Your task to perform on an android device: stop showing notifications on the lock screen Image 0: 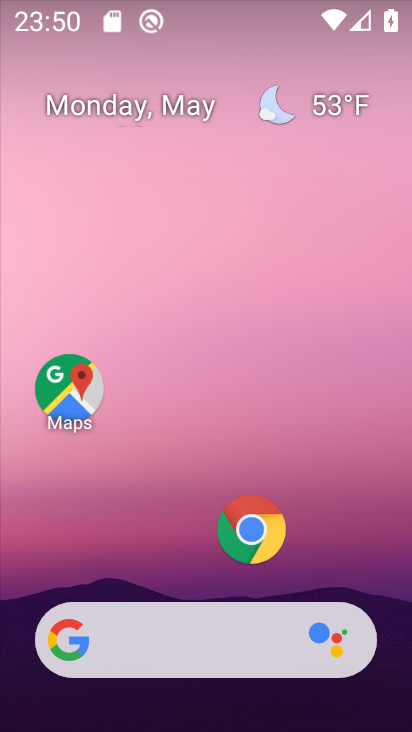
Step 0: drag from (330, 548) to (300, 166)
Your task to perform on an android device: stop showing notifications on the lock screen Image 1: 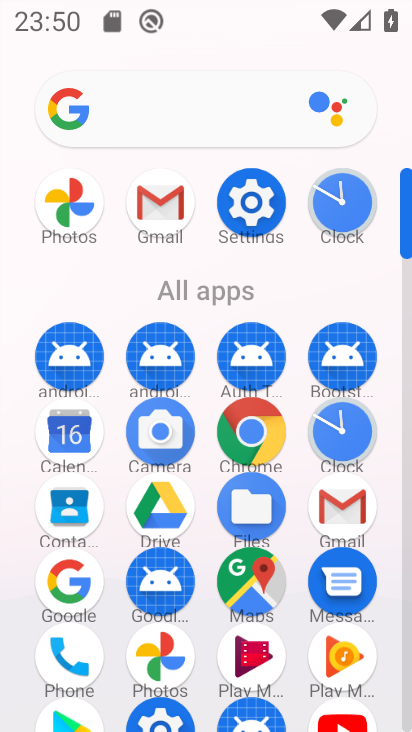
Step 1: click (255, 215)
Your task to perform on an android device: stop showing notifications on the lock screen Image 2: 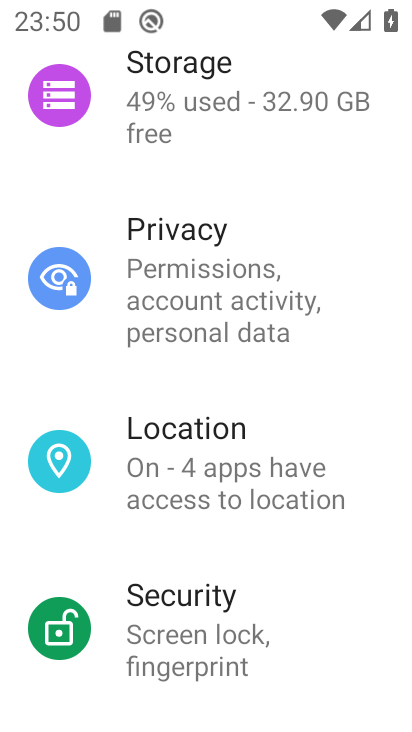
Step 2: drag from (294, 180) to (331, 451)
Your task to perform on an android device: stop showing notifications on the lock screen Image 3: 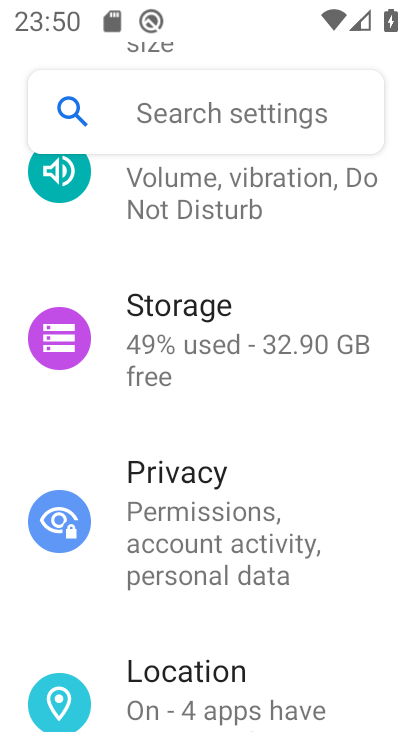
Step 3: drag from (298, 274) to (353, 520)
Your task to perform on an android device: stop showing notifications on the lock screen Image 4: 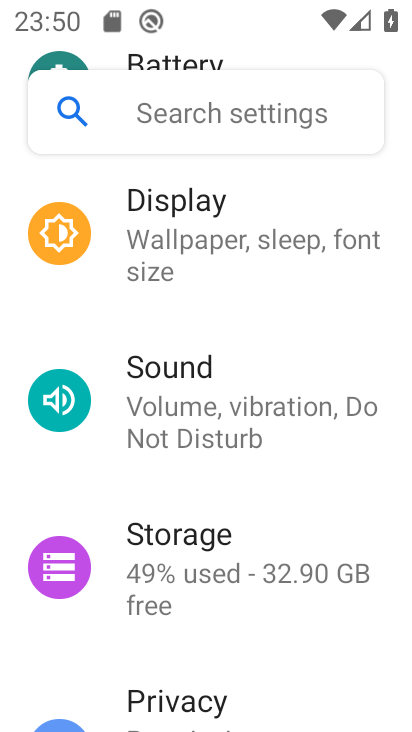
Step 4: drag from (329, 311) to (364, 582)
Your task to perform on an android device: stop showing notifications on the lock screen Image 5: 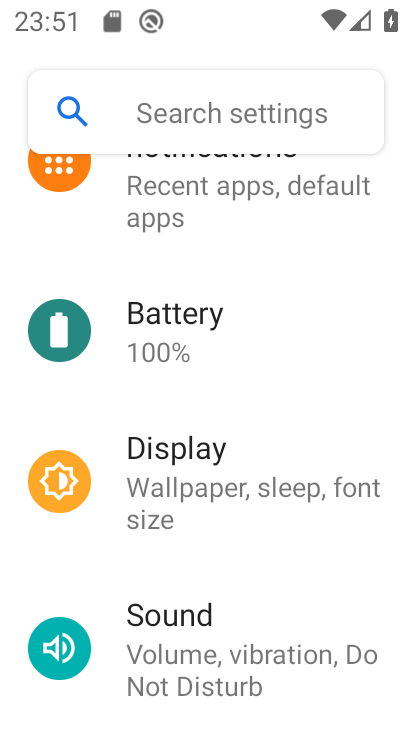
Step 5: click (240, 188)
Your task to perform on an android device: stop showing notifications on the lock screen Image 6: 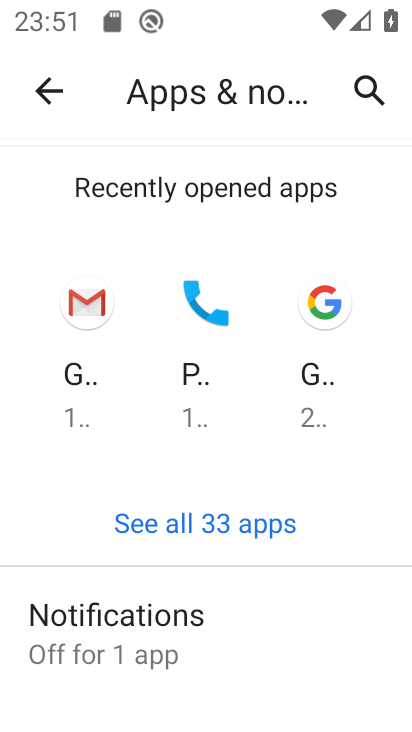
Step 6: click (164, 630)
Your task to perform on an android device: stop showing notifications on the lock screen Image 7: 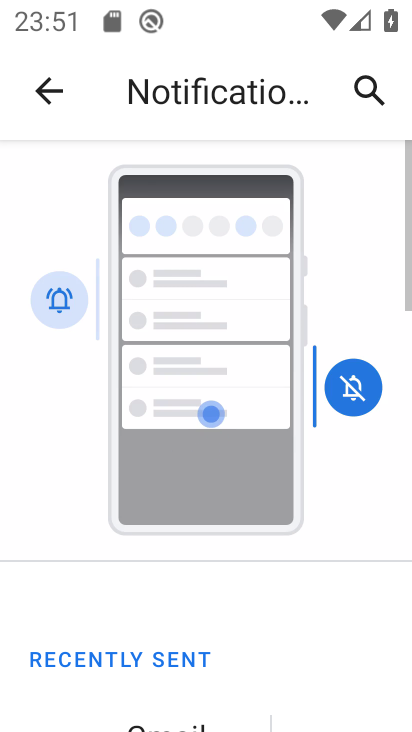
Step 7: drag from (313, 618) to (270, 235)
Your task to perform on an android device: stop showing notifications on the lock screen Image 8: 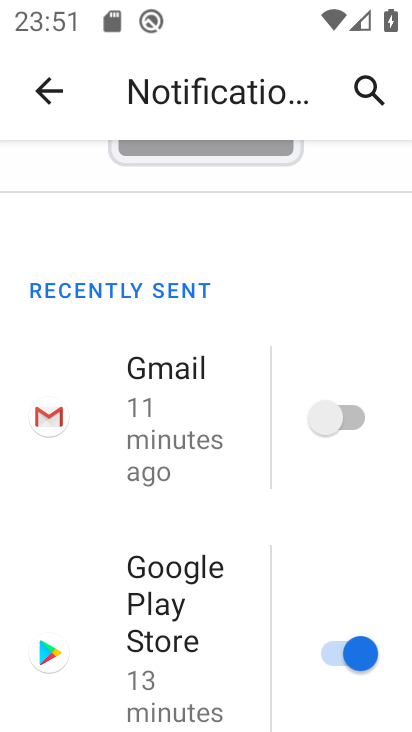
Step 8: drag from (260, 616) to (246, 399)
Your task to perform on an android device: stop showing notifications on the lock screen Image 9: 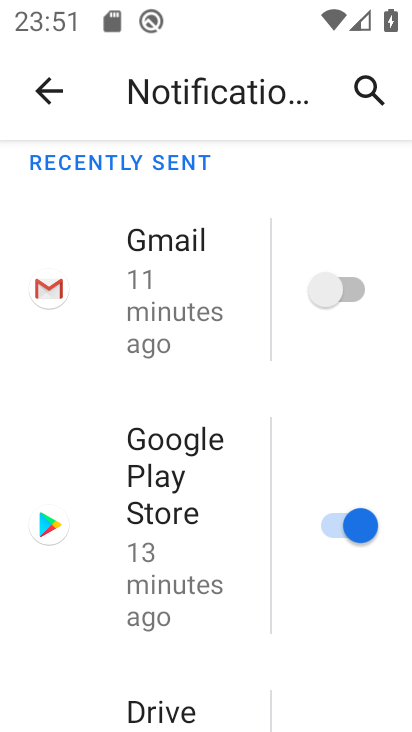
Step 9: drag from (271, 589) to (280, 177)
Your task to perform on an android device: stop showing notifications on the lock screen Image 10: 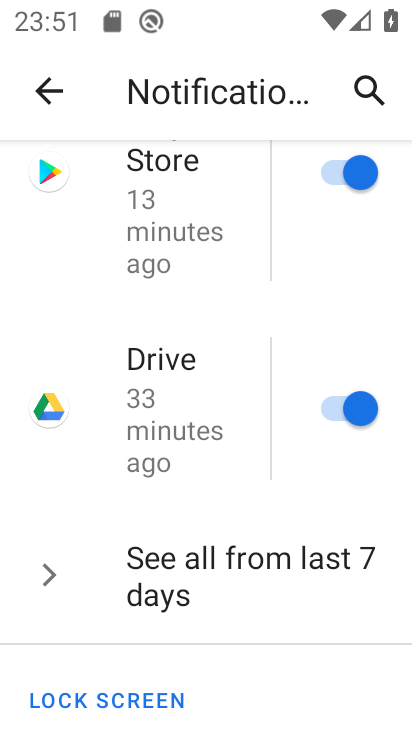
Step 10: click (280, 134)
Your task to perform on an android device: stop showing notifications on the lock screen Image 11: 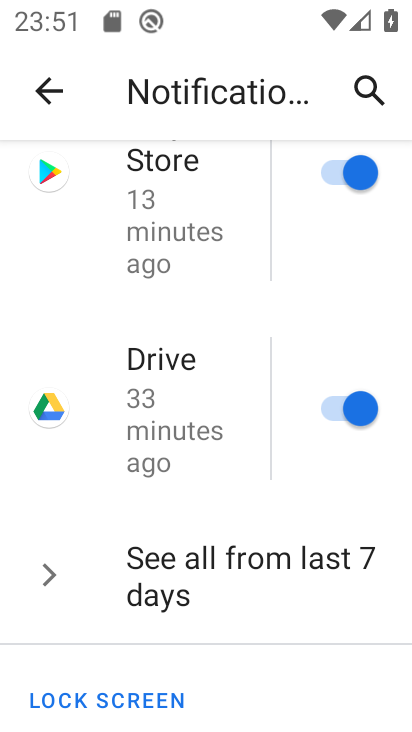
Step 11: drag from (251, 627) to (282, 197)
Your task to perform on an android device: stop showing notifications on the lock screen Image 12: 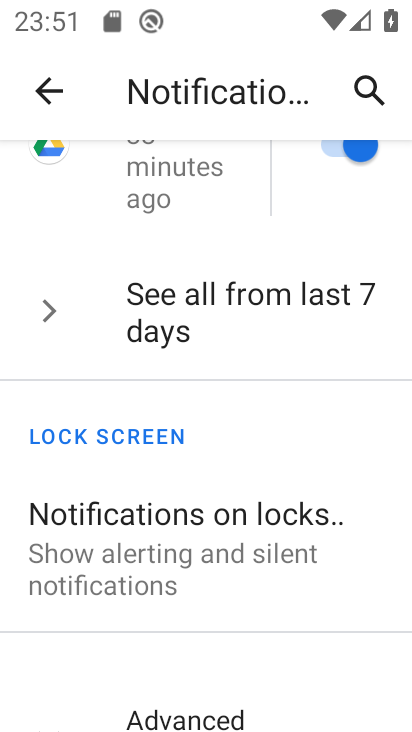
Step 12: click (185, 543)
Your task to perform on an android device: stop showing notifications on the lock screen Image 13: 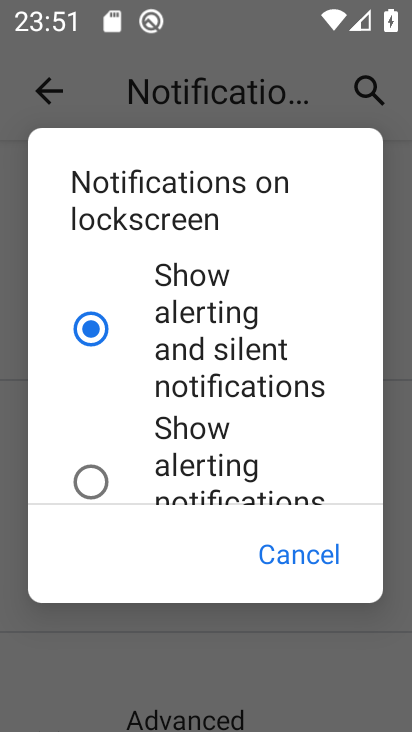
Step 13: drag from (220, 443) to (208, 239)
Your task to perform on an android device: stop showing notifications on the lock screen Image 14: 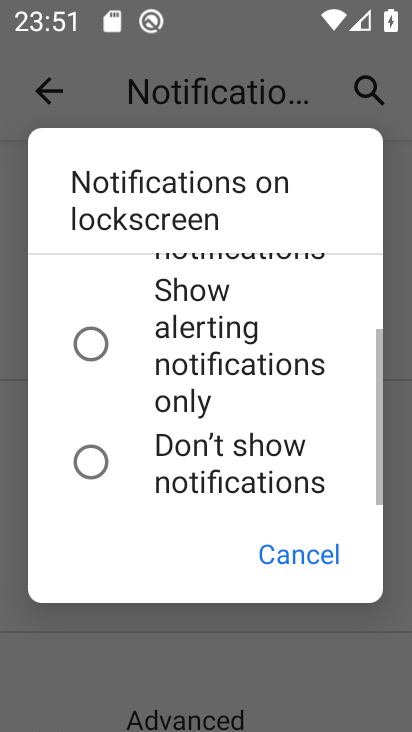
Step 14: click (98, 461)
Your task to perform on an android device: stop showing notifications on the lock screen Image 15: 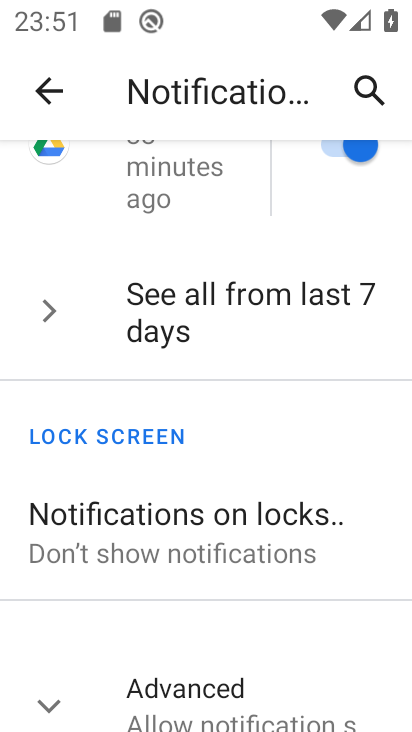
Step 15: task complete